Your task to perform on an android device: install app "Etsy: Buy & Sell Unique Items" Image 0: 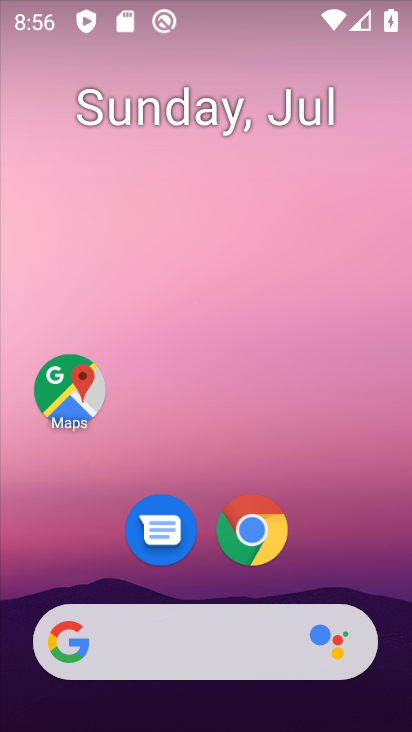
Step 0: drag from (229, 474) to (137, 115)
Your task to perform on an android device: install app "Etsy: Buy & Sell Unique Items" Image 1: 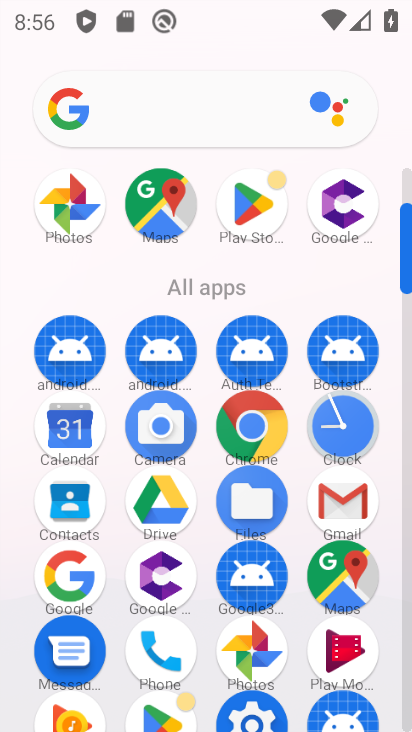
Step 1: click (261, 190)
Your task to perform on an android device: install app "Etsy: Buy & Sell Unique Items" Image 2: 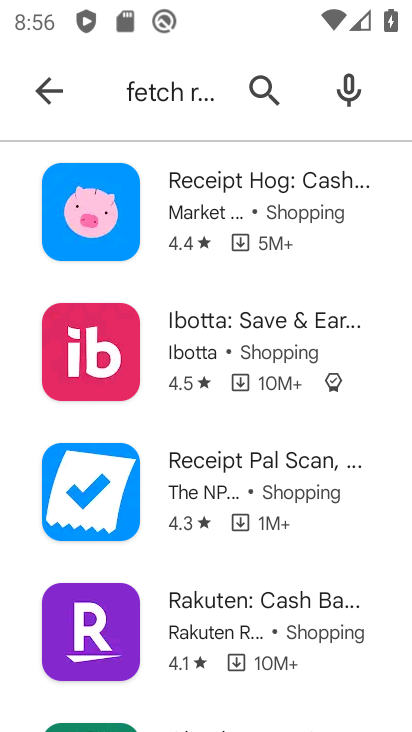
Step 2: type "Etsy: Buy & Sell Unique Items"
Your task to perform on an android device: install app "Etsy: Buy & Sell Unique Items" Image 3: 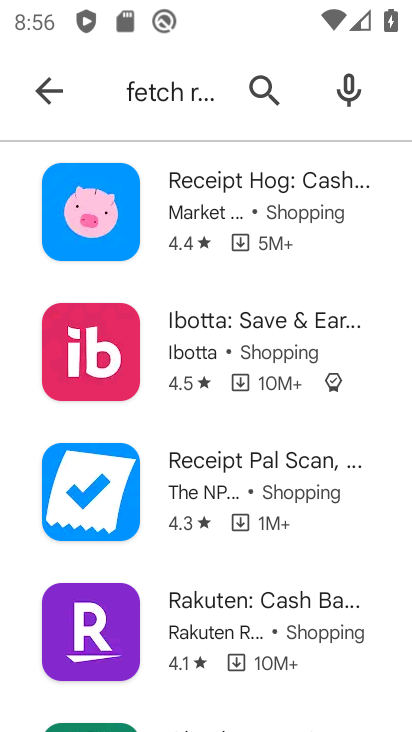
Step 3: click (259, 95)
Your task to perform on an android device: install app "Etsy: Buy & Sell Unique Items" Image 4: 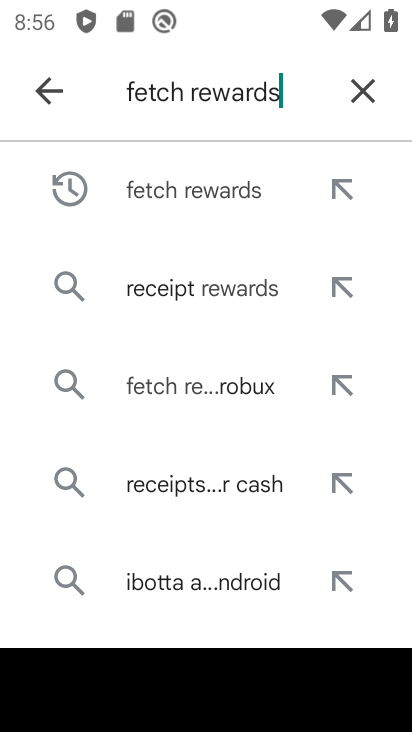
Step 4: click (369, 81)
Your task to perform on an android device: install app "Etsy: Buy & Sell Unique Items" Image 5: 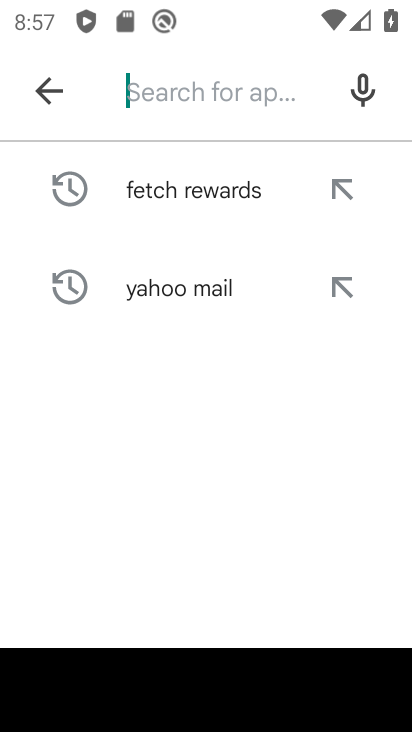
Step 5: type "Etsy: Buy & Sell Unique Items"
Your task to perform on an android device: install app "Etsy: Buy & Sell Unique Items" Image 6: 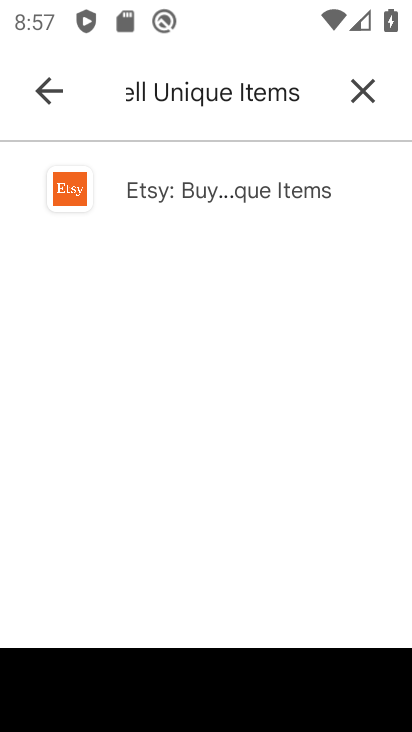
Step 6: click (253, 198)
Your task to perform on an android device: install app "Etsy: Buy & Sell Unique Items" Image 7: 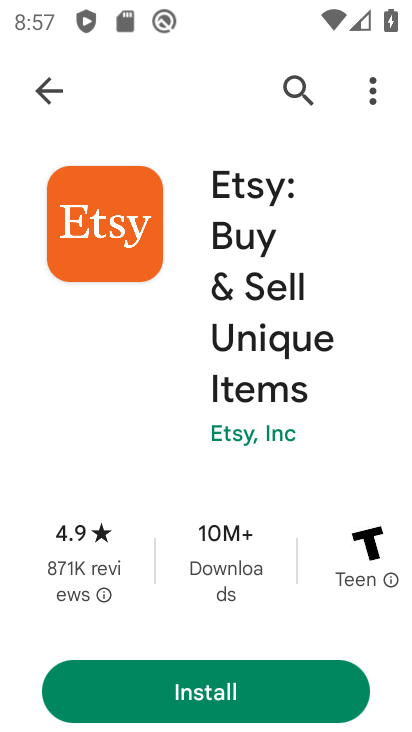
Step 7: click (277, 702)
Your task to perform on an android device: install app "Etsy: Buy & Sell Unique Items" Image 8: 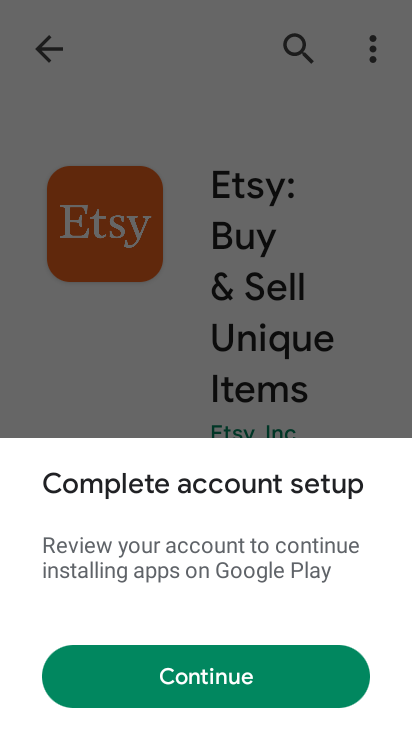
Step 8: click (187, 689)
Your task to perform on an android device: install app "Etsy: Buy & Sell Unique Items" Image 9: 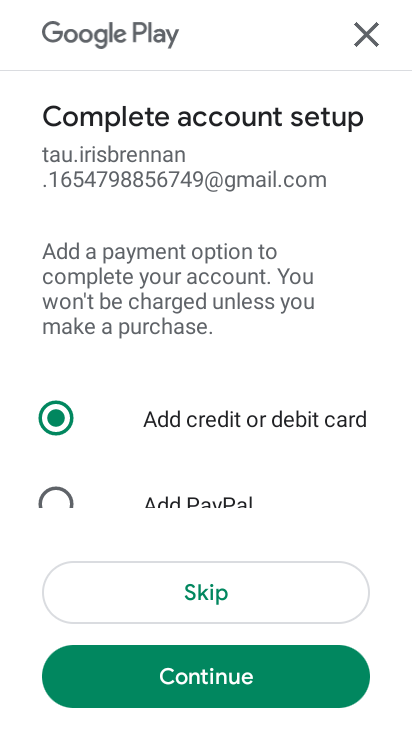
Step 9: click (141, 604)
Your task to perform on an android device: install app "Etsy: Buy & Sell Unique Items" Image 10: 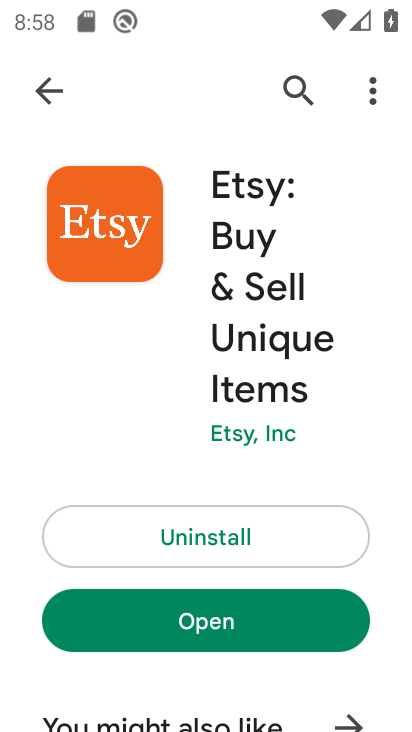
Step 10: task complete